Your task to perform on an android device: Open Google Image 0: 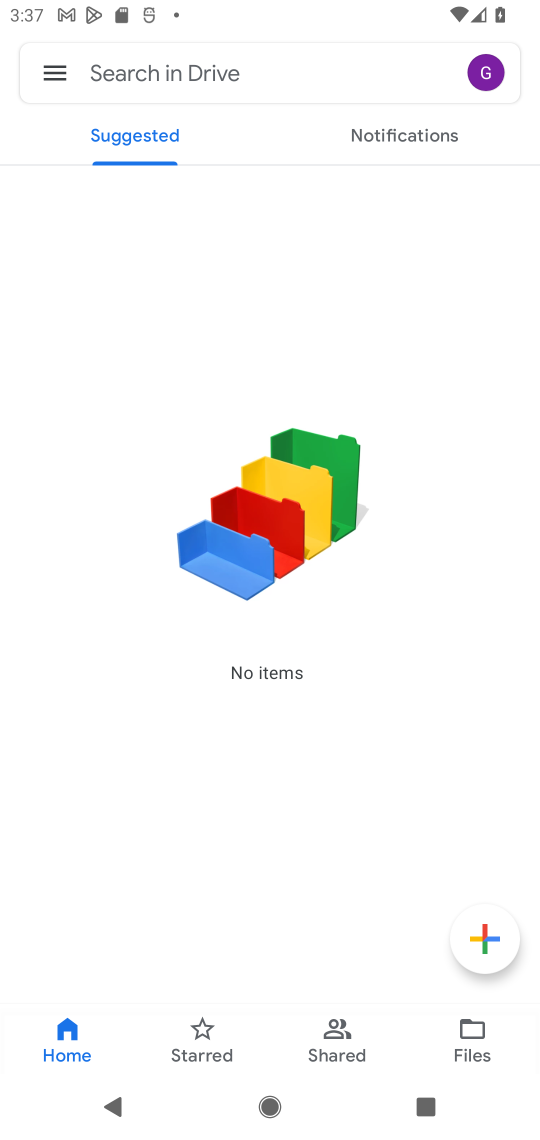
Step 0: press home button
Your task to perform on an android device: Open Google Image 1: 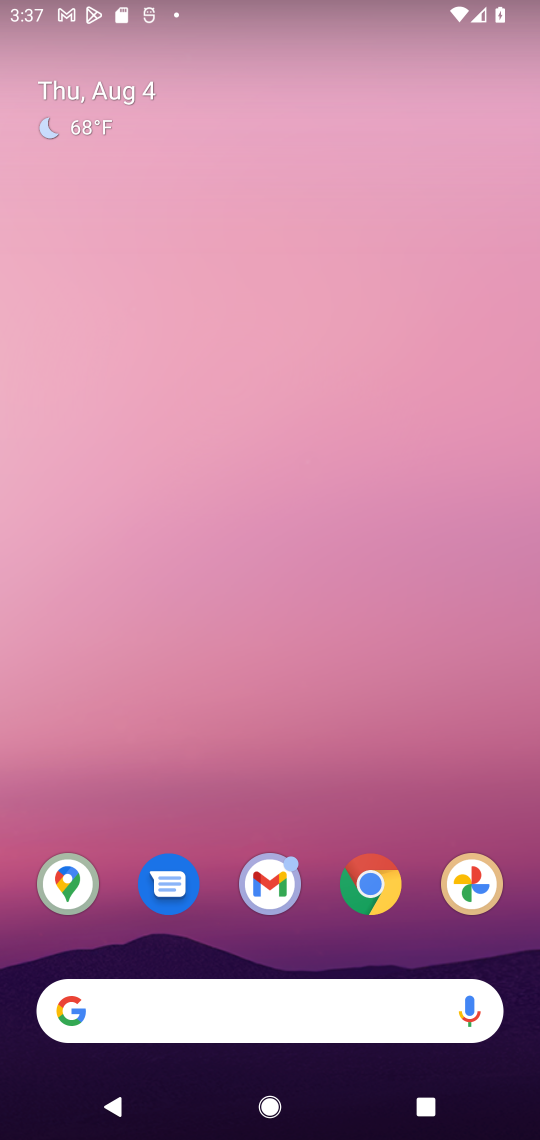
Step 1: click (372, 877)
Your task to perform on an android device: Open Google Image 2: 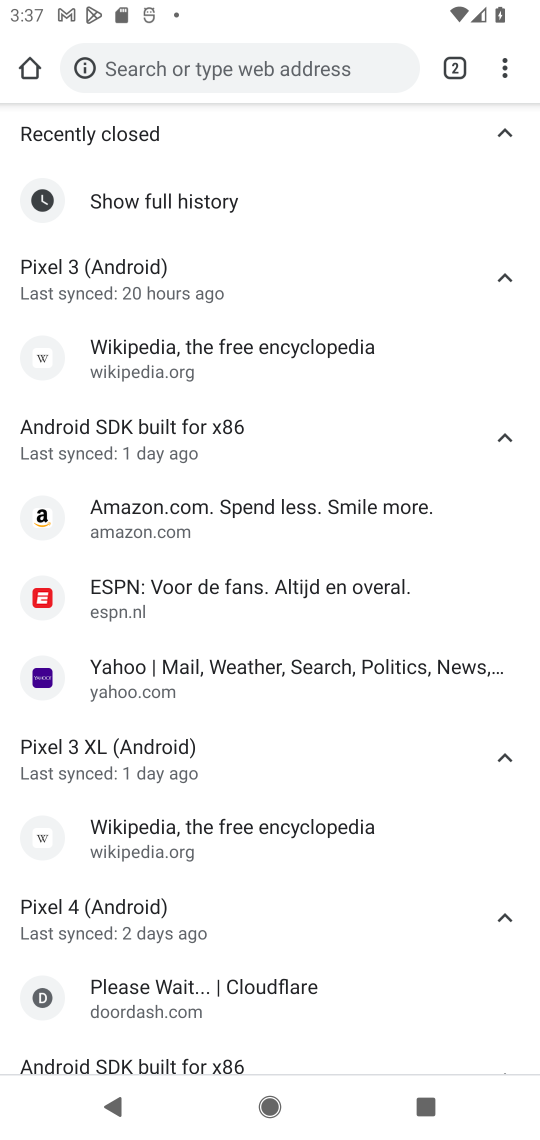
Step 2: click (251, 65)
Your task to perform on an android device: Open Google Image 3: 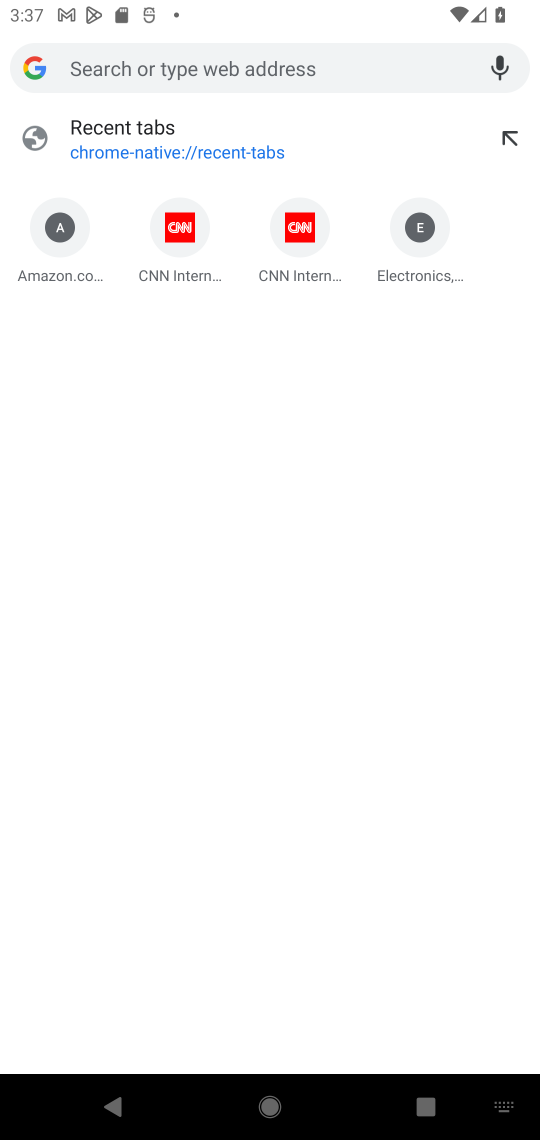
Step 3: type "google"
Your task to perform on an android device: Open Google Image 4: 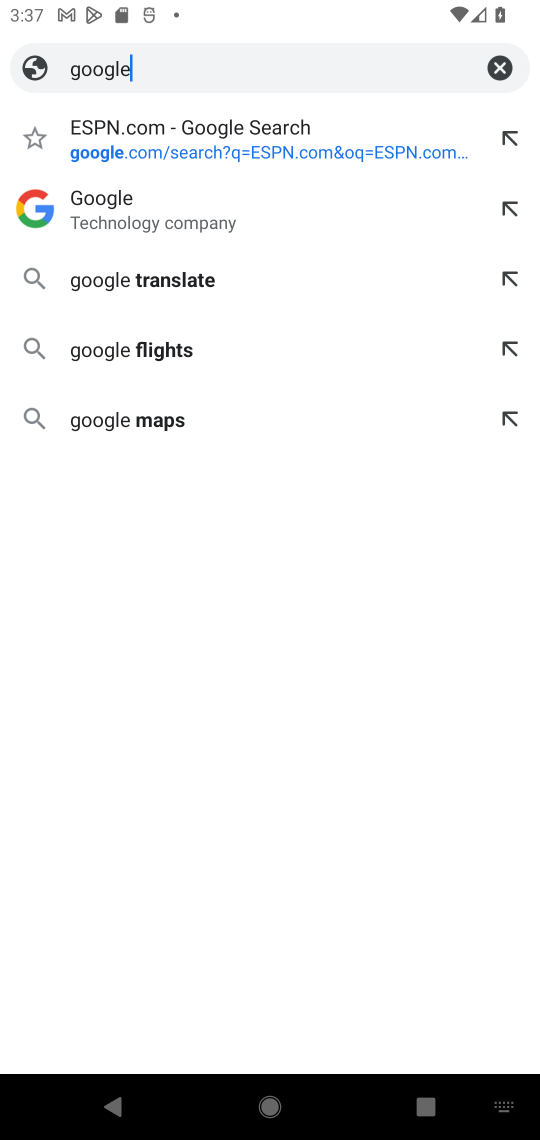
Step 4: click (166, 218)
Your task to perform on an android device: Open Google Image 5: 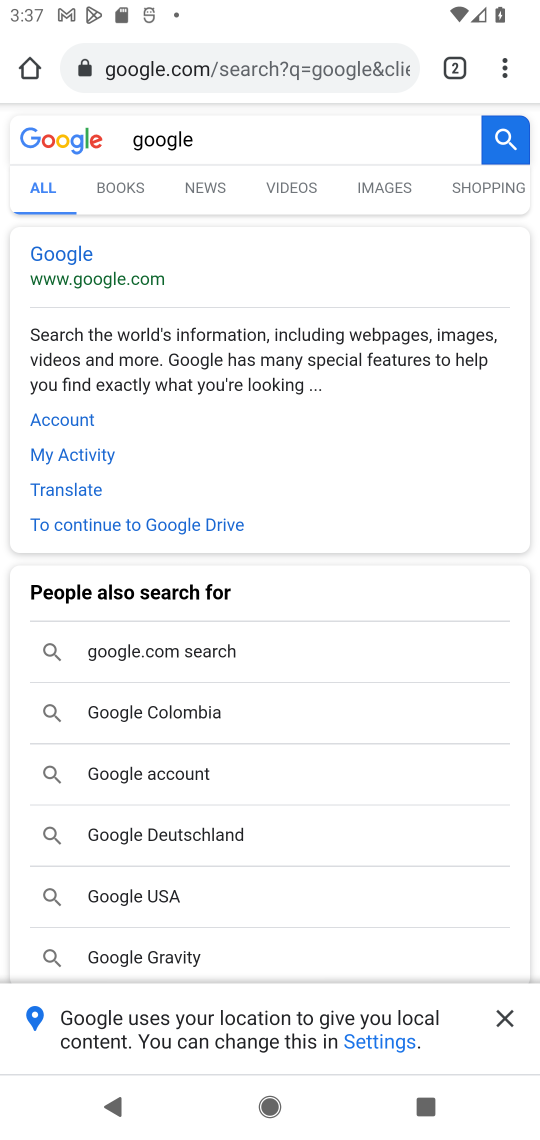
Step 5: task complete